Your task to perform on an android device: When is my next appointment? Image 0: 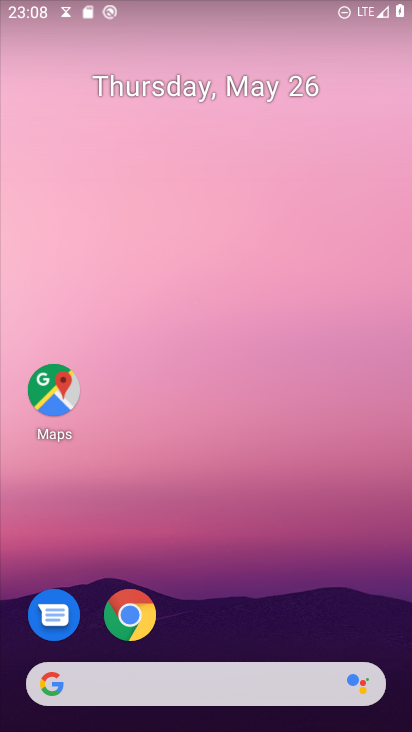
Step 0: drag from (248, 596) to (297, 91)
Your task to perform on an android device: When is my next appointment? Image 1: 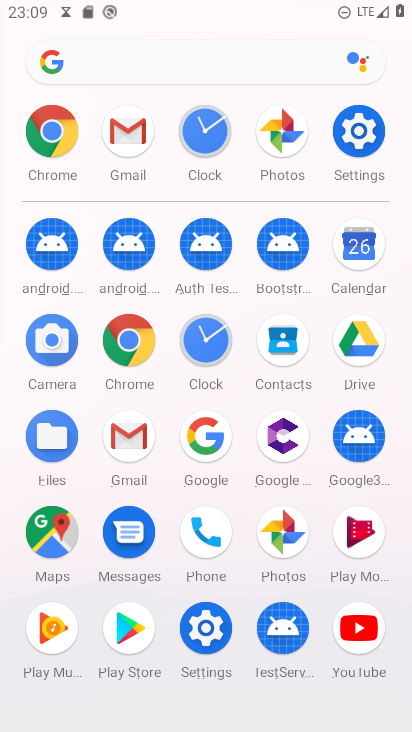
Step 1: click (358, 243)
Your task to perform on an android device: When is my next appointment? Image 2: 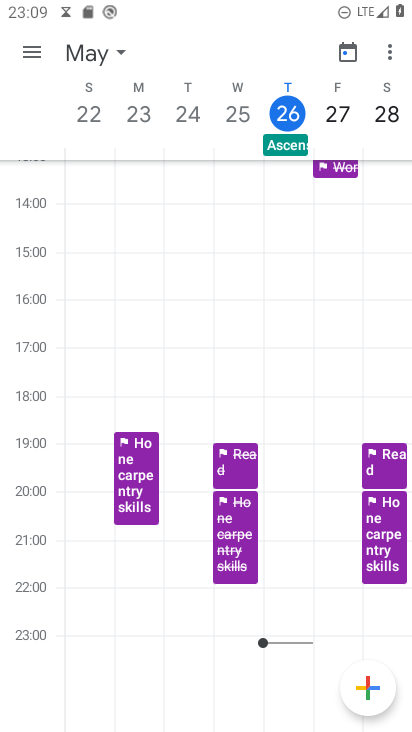
Step 2: click (333, 114)
Your task to perform on an android device: When is my next appointment? Image 3: 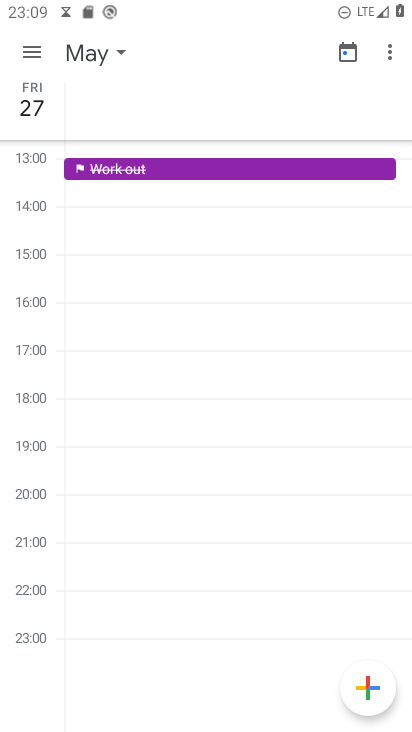
Step 3: task complete